Your task to perform on an android device: turn off location Image 0: 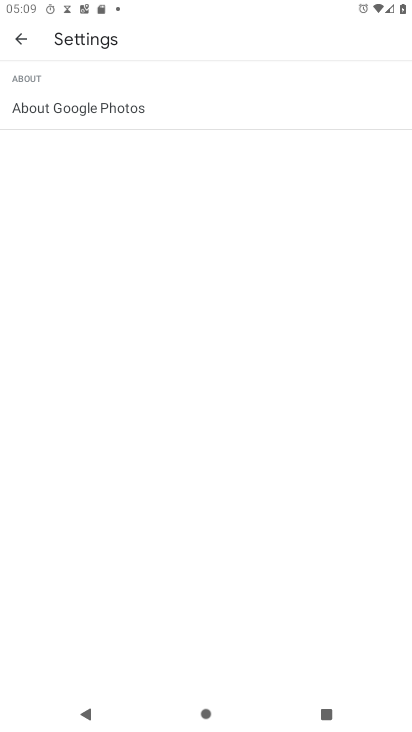
Step 0: press home button
Your task to perform on an android device: turn off location Image 1: 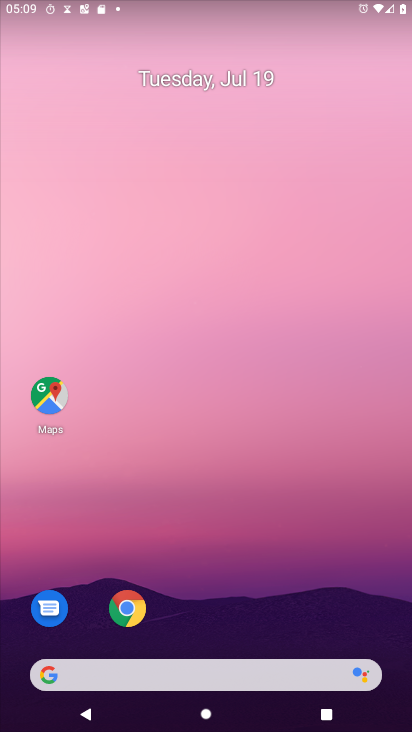
Step 1: drag from (221, 683) to (354, 28)
Your task to perform on an android device: turn off location Image 2: 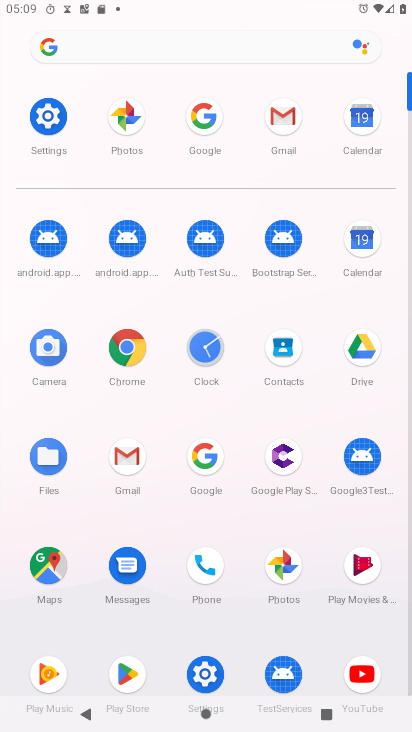
Step 2: click (205, 673)
Your task to perform on an android device: turn off location Image 3: 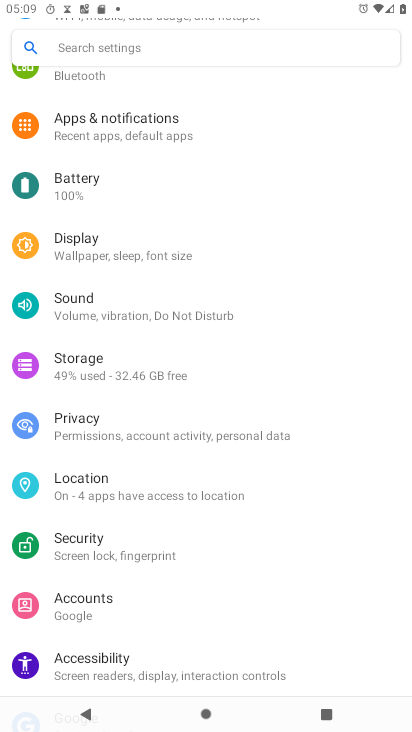
Step 3: click (66, 486)
Your task to perform on an android device: turn off location Image 4: 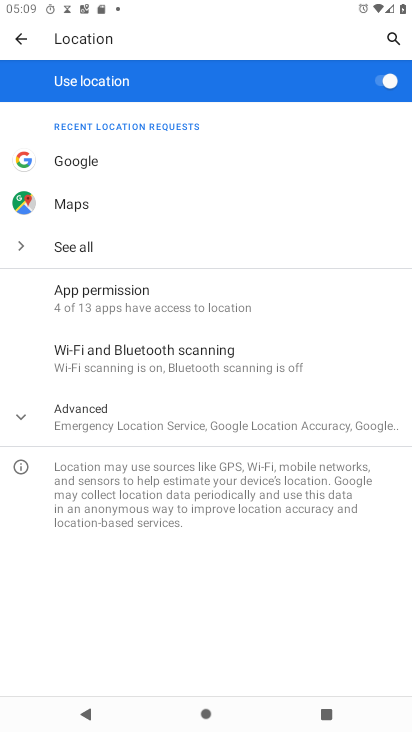
Step 4: click (381, 89)
Your task to perform on an android device: turn off location Image 5: 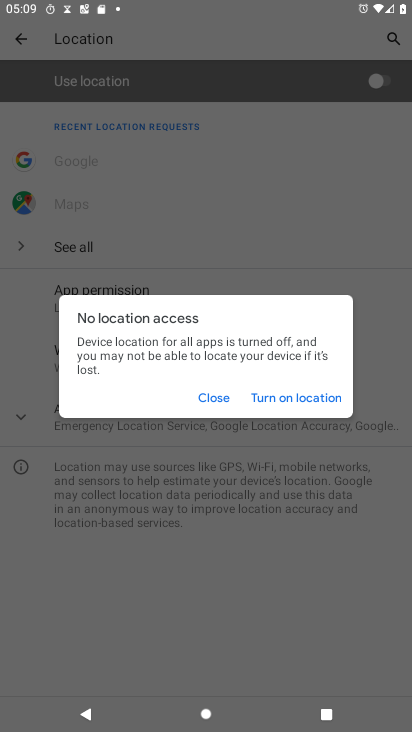
Step 5: click (213, 399)
Your task to perform on an android device: turn off location Image 6: 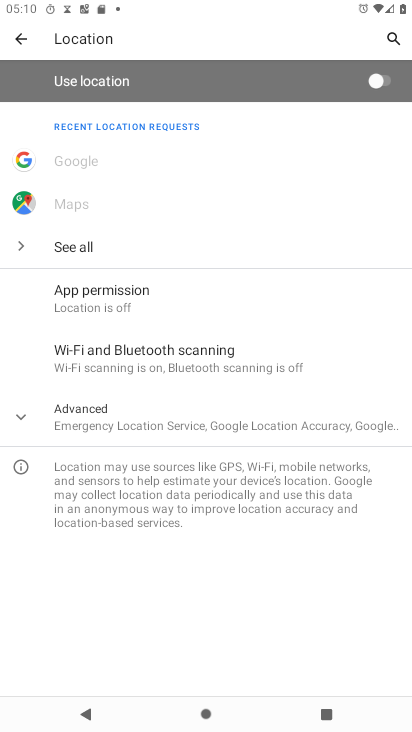
Step 6: task complete